Your task to perform on an android device: Open the calendar app, open the side menu, and click the "Day" option Image 0: 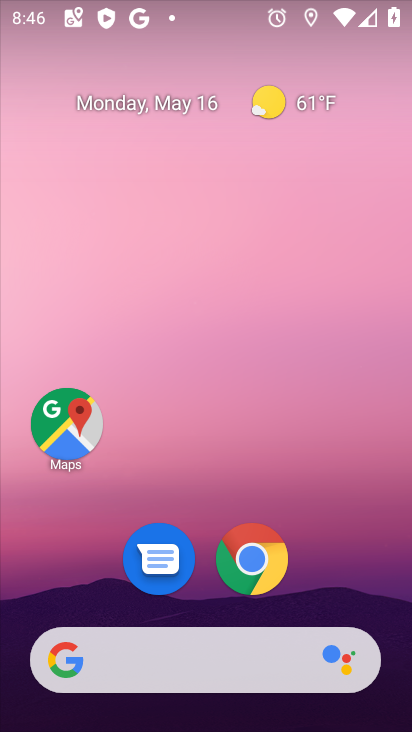
Step 0: drag from (376, 527) to (388, 130)
Your task to perform on an android device: Open the calendar app, open the side menu, and click the "Day" option Image 1: 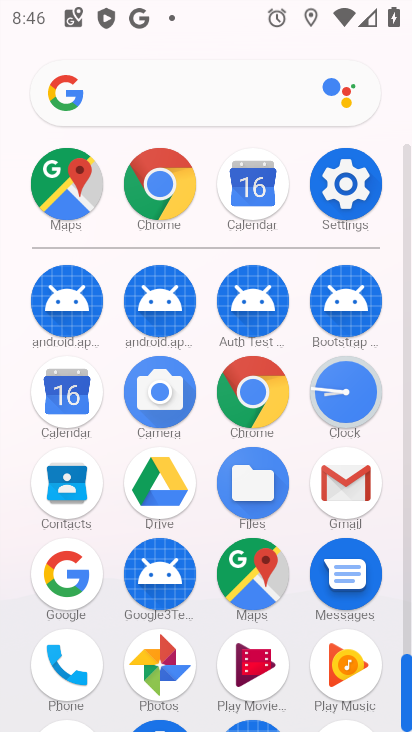
Step 1: click (55, 393)
Your task to perform on an android device: Open the calendar app, open the side menu, and click the "Day" option Image 2: 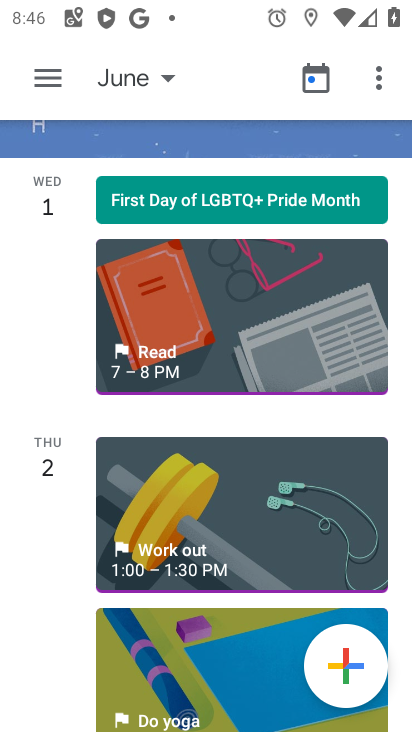
Step 2: click (39, 84)
Your task to perform on an android device: Open the calendar app, open the side menu, and click the "Day" option Image 3: 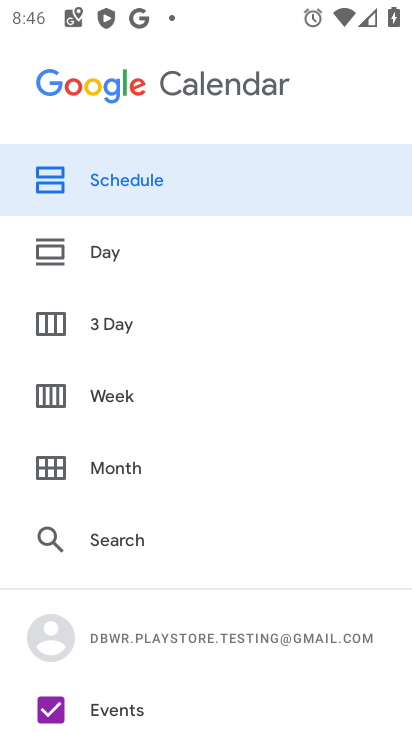
Step 3: click (108, 251)
Your task to perform on an android device: Open the calendar app, open the side menu, and click the "Day" option Image 4: 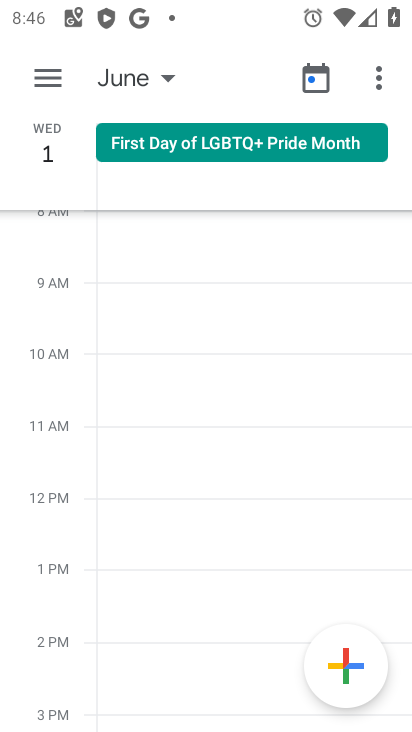
Step 4: task complete